Your task to perform on an android device: Search for jbl charge 4 on target, select the first entry, and add it to the cart. Image 0: 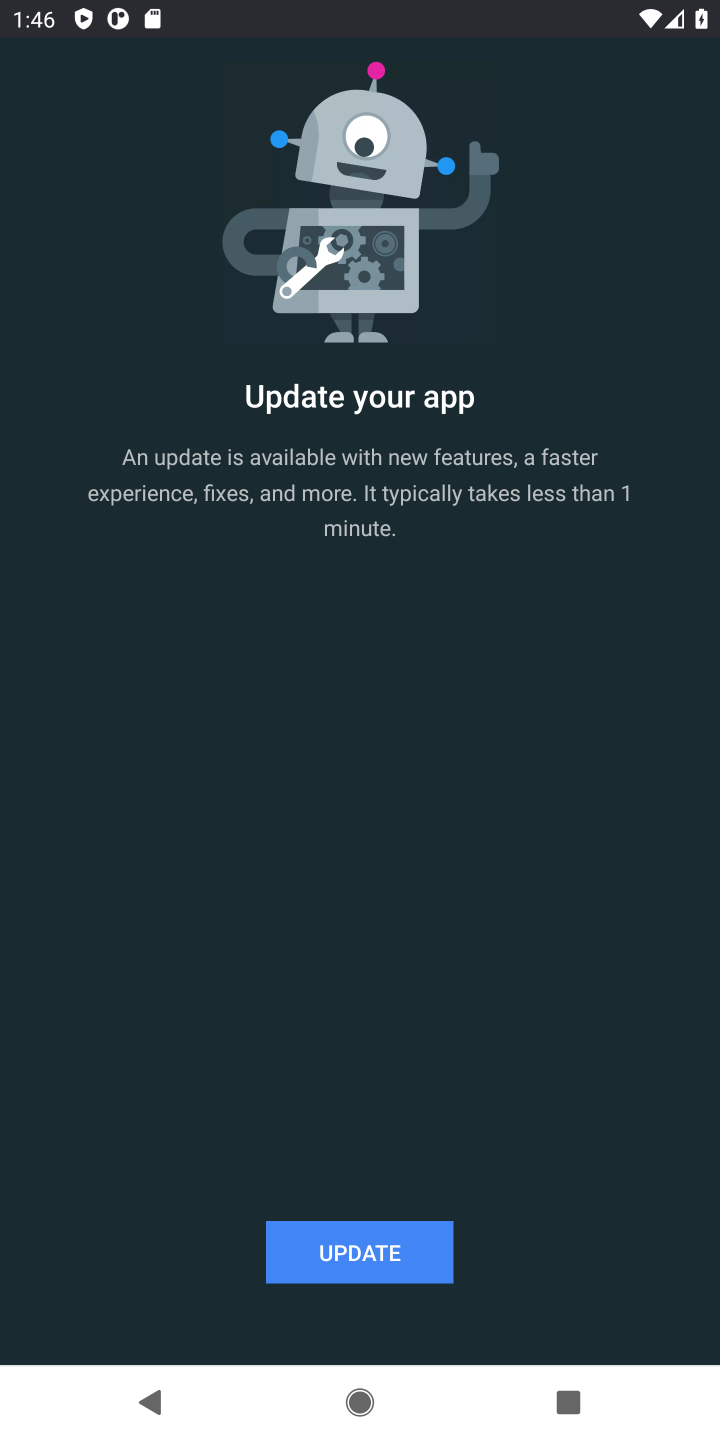
Step 0: press home button
Your task to perform on an android device: Search for jbl charge 4 on target, select the first entry, and add it to the cart. Image 1: 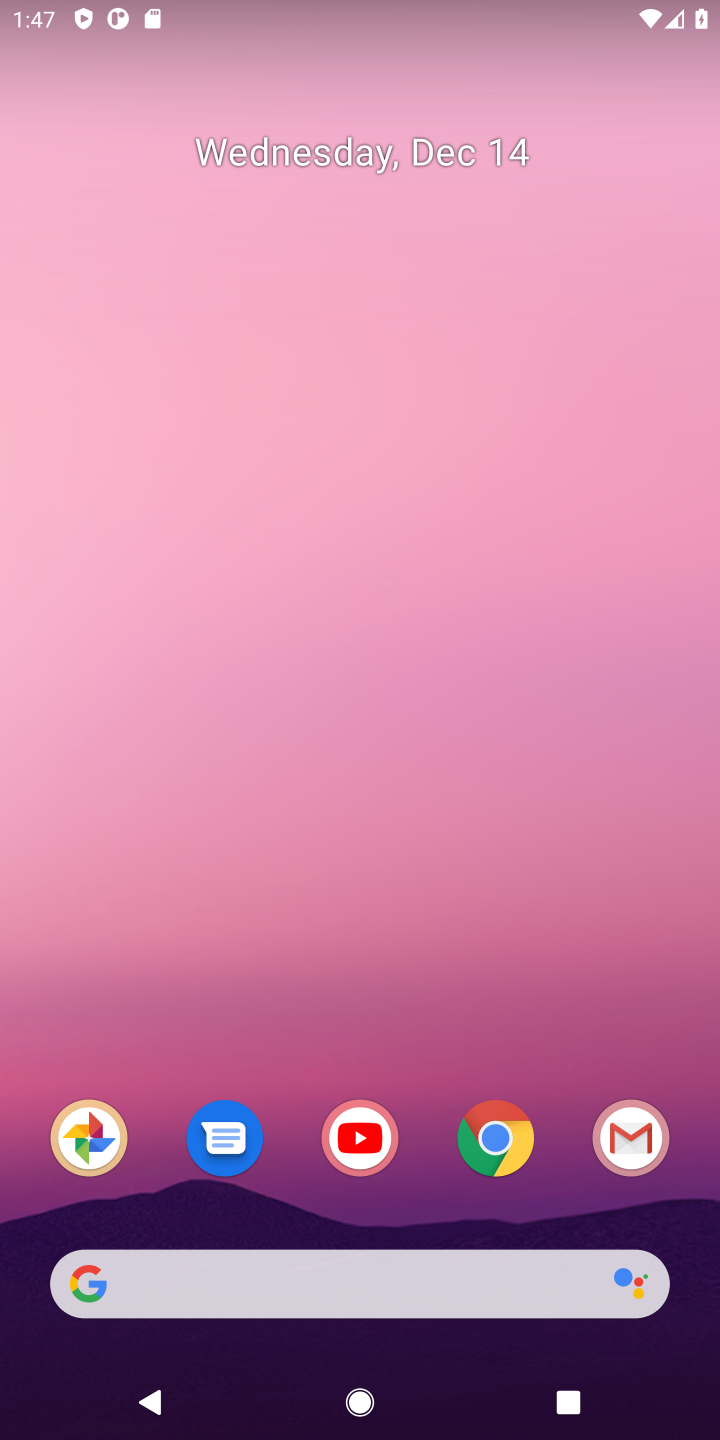
Step 1: click (499, 1140)
Your task to perform on an android device: Search for jbl charge 4 on target, select the first entry, and add it to the cart. Image 2: 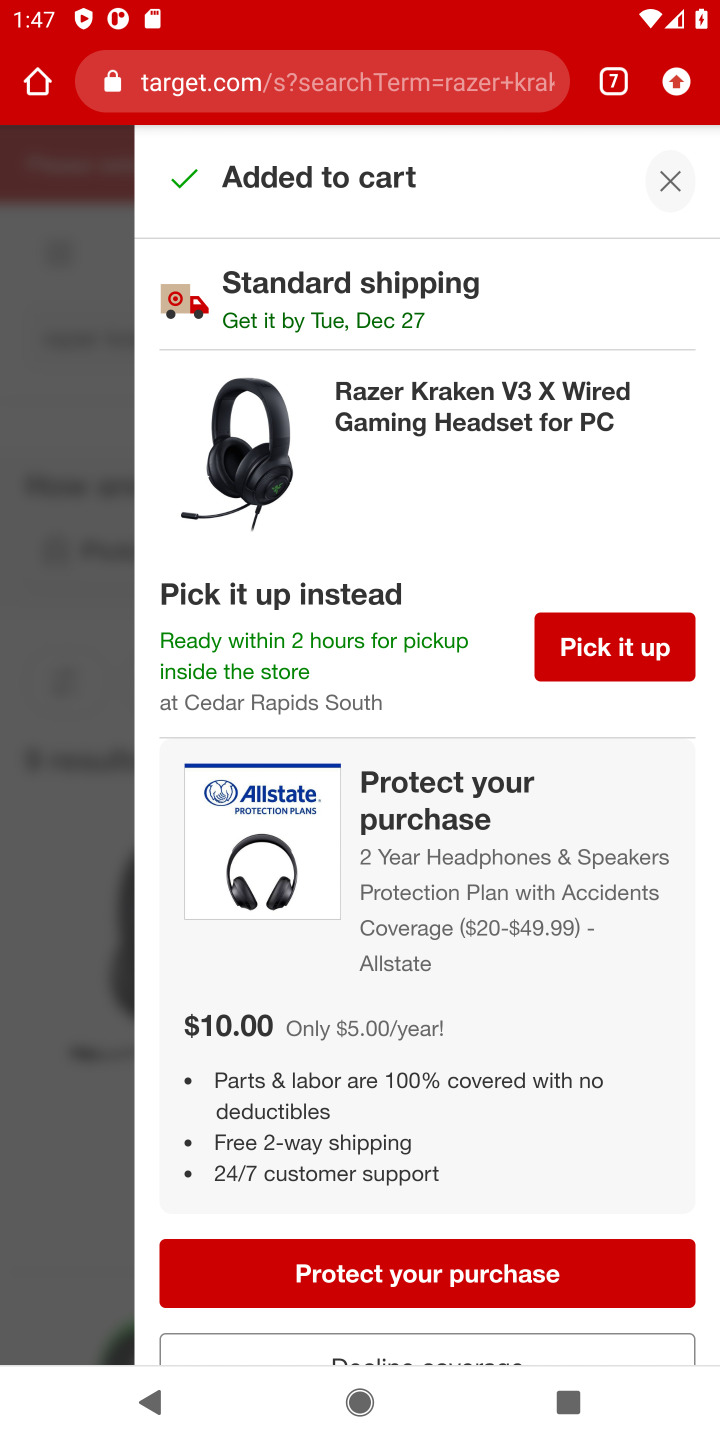
Step 2: click (667, 177)
Your task to perform on an android device: Search for jbl charge 4 on target, select the first entry, and add it to the cart. Image 3: 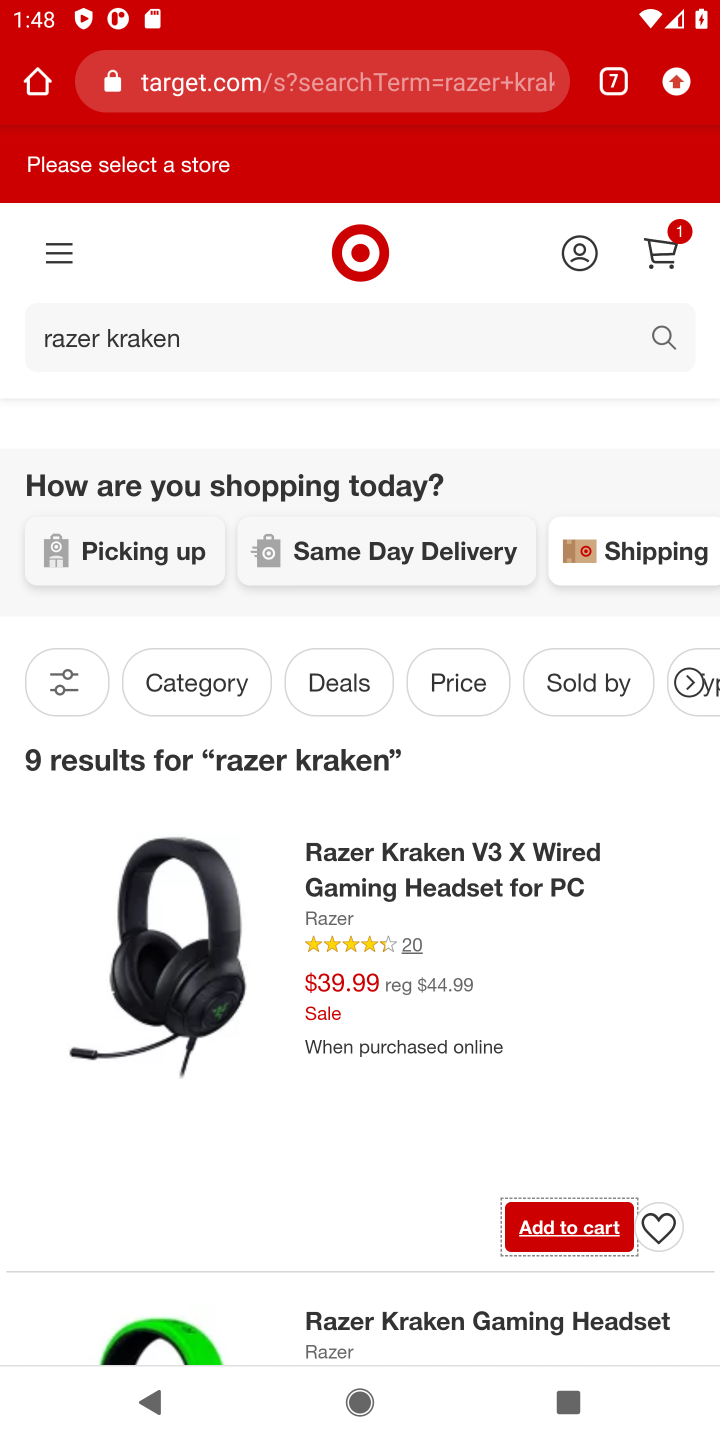
Step 3: click (249, 332)
Your task to perform on an android device: Search for jbl charge 4 on target, select the first entry, and add it to the cart. Image 4: 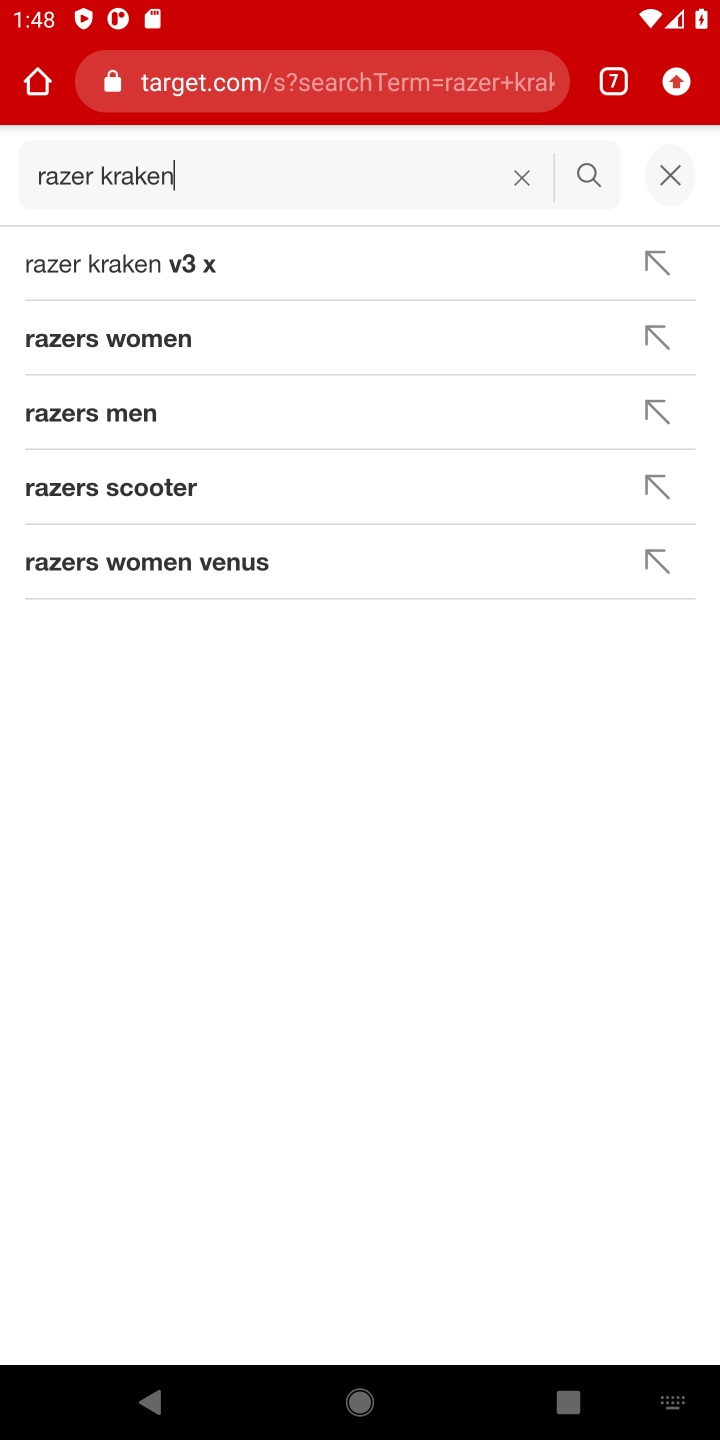
Step 4: click (528, 177)
Your task to perform on an android device: Search for jbl charge 4 on target, select the first entry, and add it to the cart. Image 5: 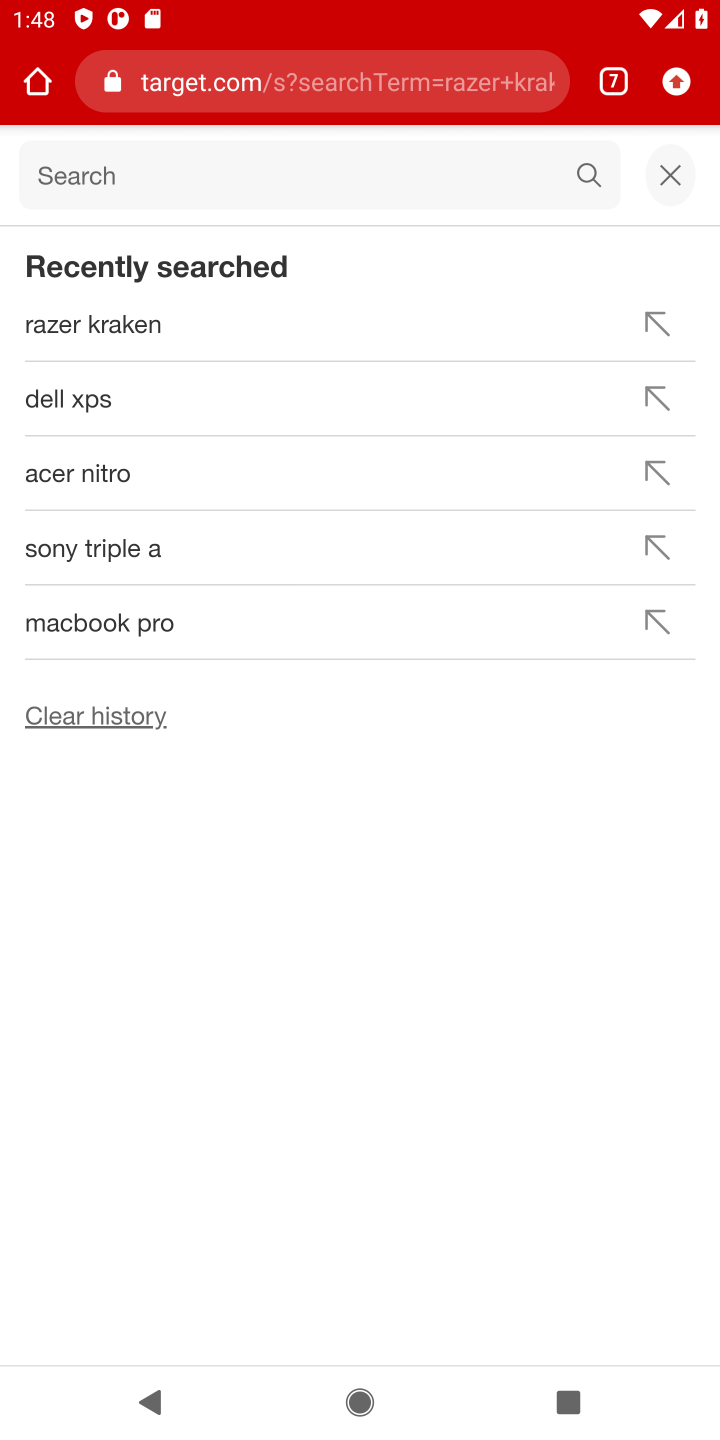
Step 5: type "jbl charge 4 "
Your task to perform on an android device: Search for jbl charge 4 on target, select the first entry, and add it to the cart. Image 6: 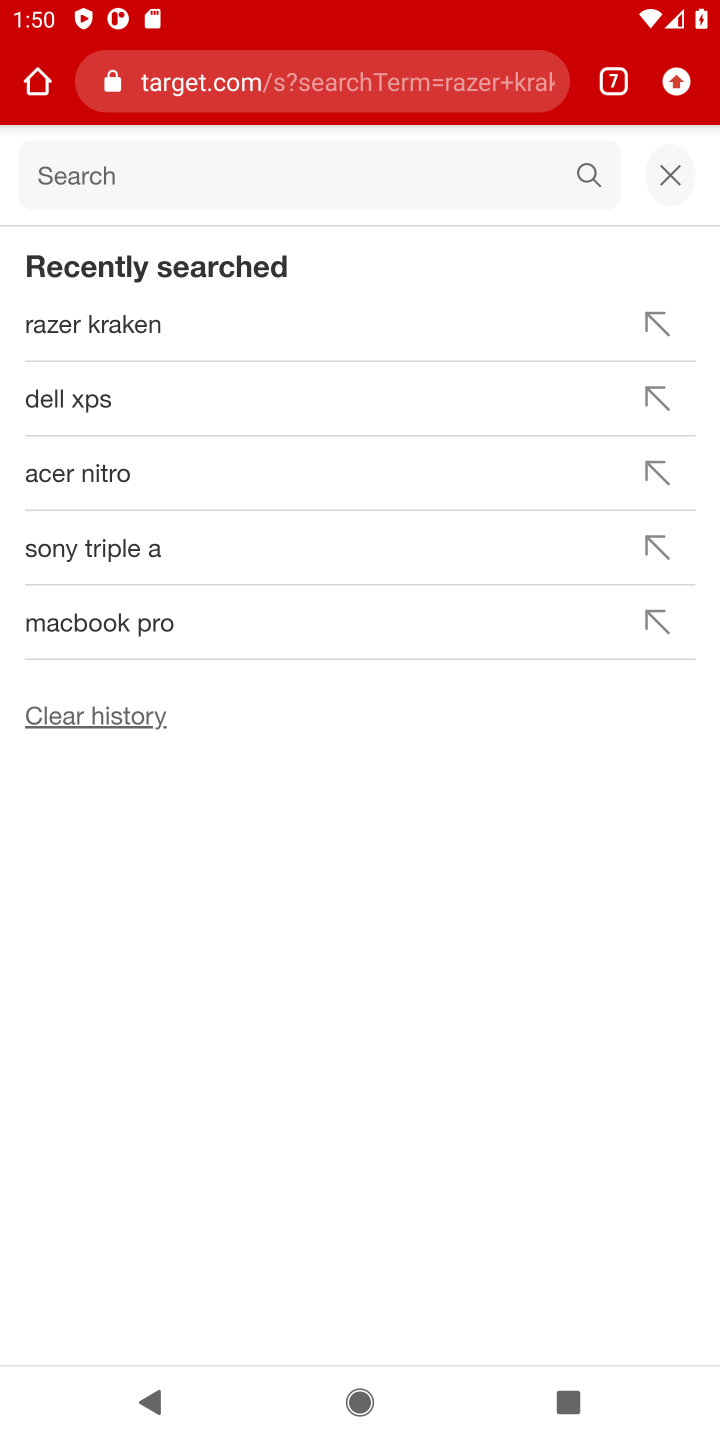
Step 6: click (117, 170)
Your task to perform on an android device: Search for jbl charge 4 on target, select the first entry, and add it to the cart. Image 7: 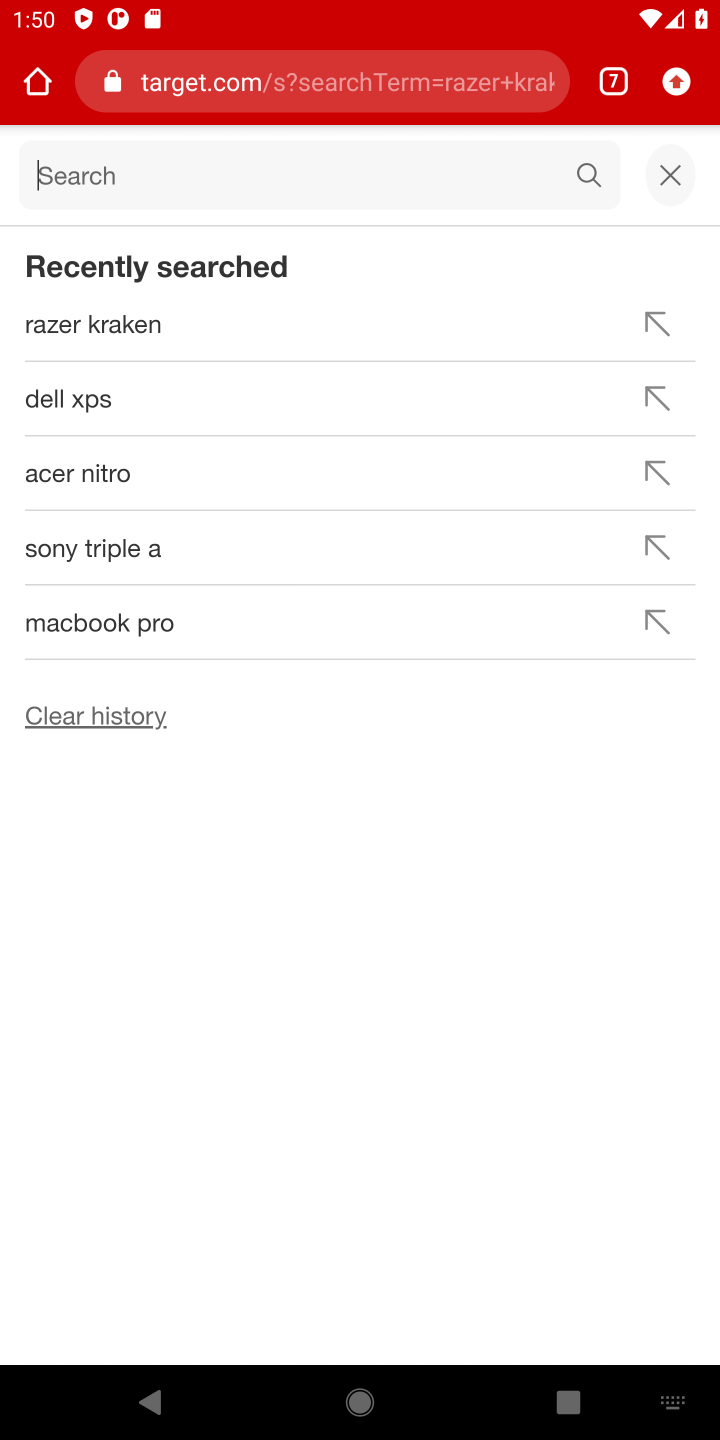
Step 7: type " jbl charge 4"
Your task to perform on an android device: Search for jbl charge 4 on target, select the first entry, and add it to the cart. Image 8: 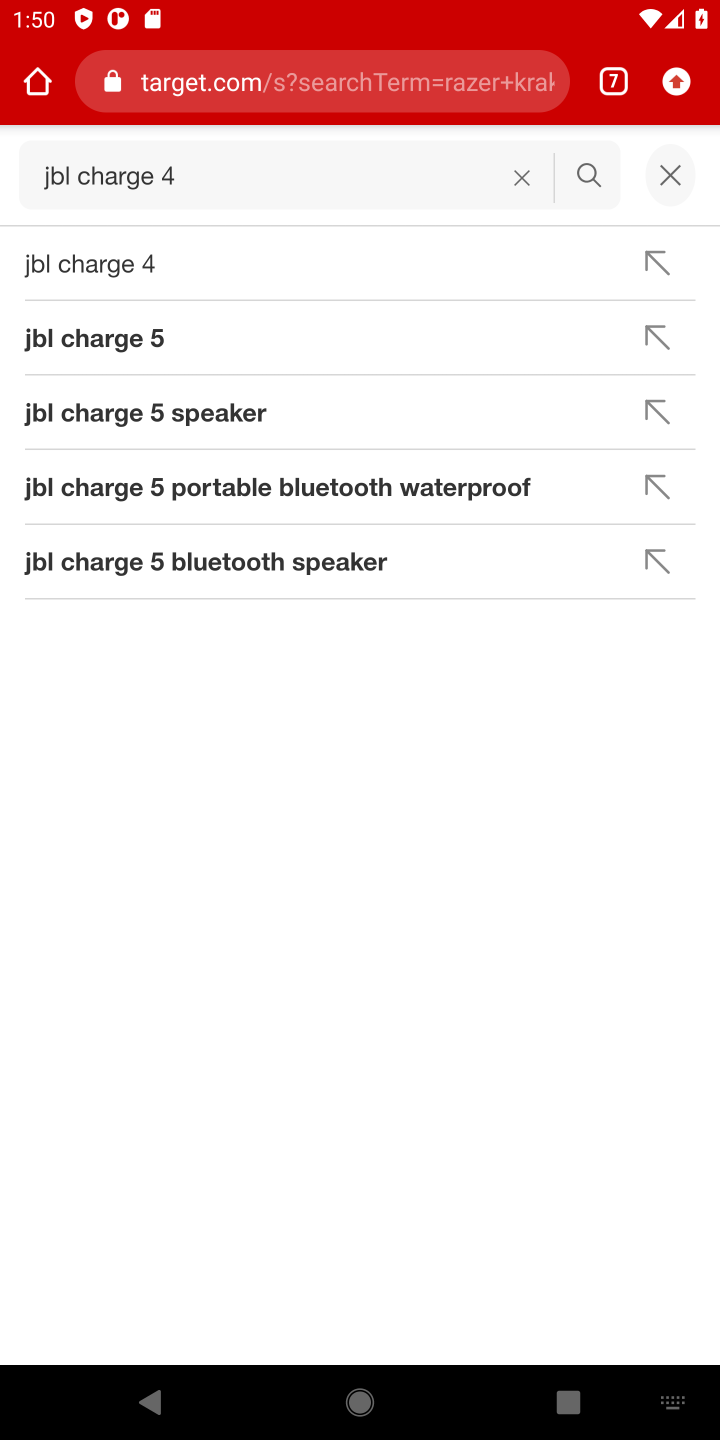
Step 8: click (62, 255)
Your task to perform on an android device: Search for jbl charge 4 on target, select the first entry, and add it to the cart. Image 9: 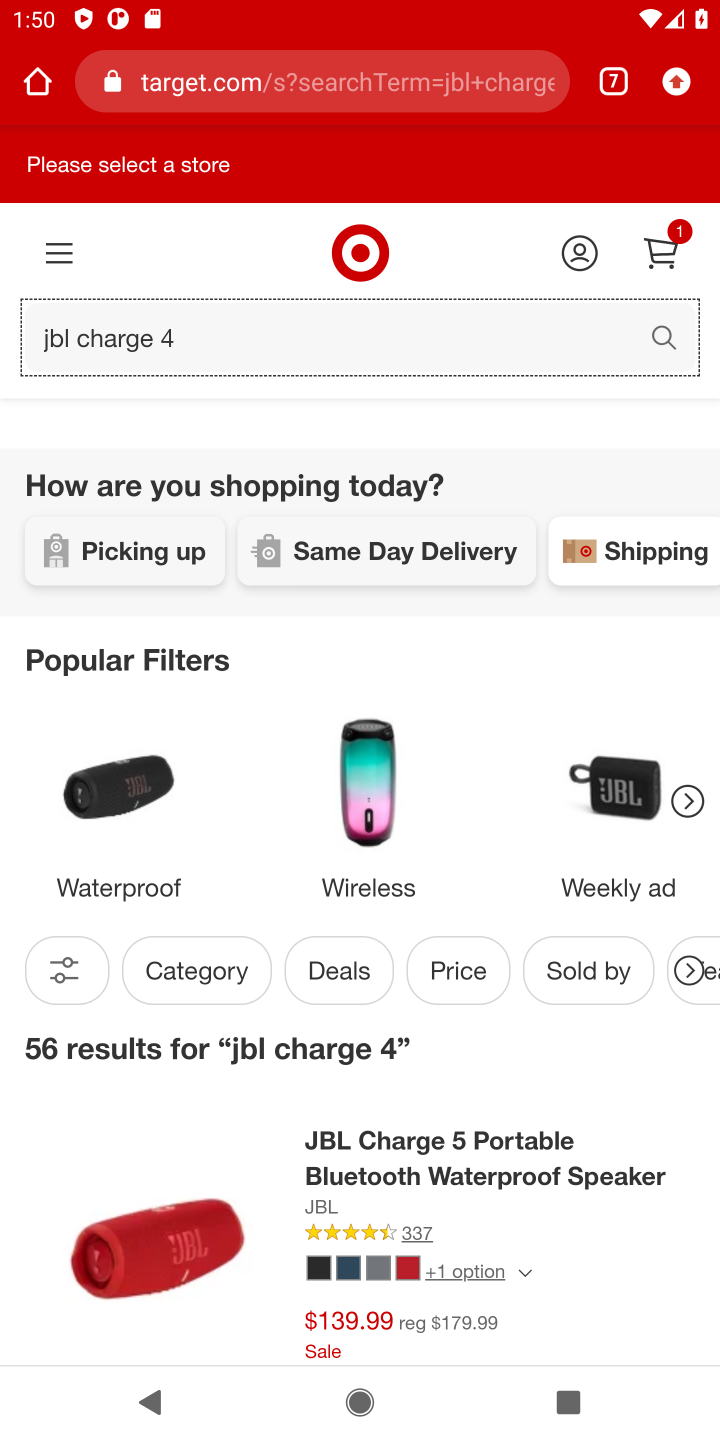
Step 9: drag from (546, 1223) to (655, 305)
Your task to perform on an android device: Search for jbl charge 4 on target, select the first entry, and add it to the cart. Image 10: 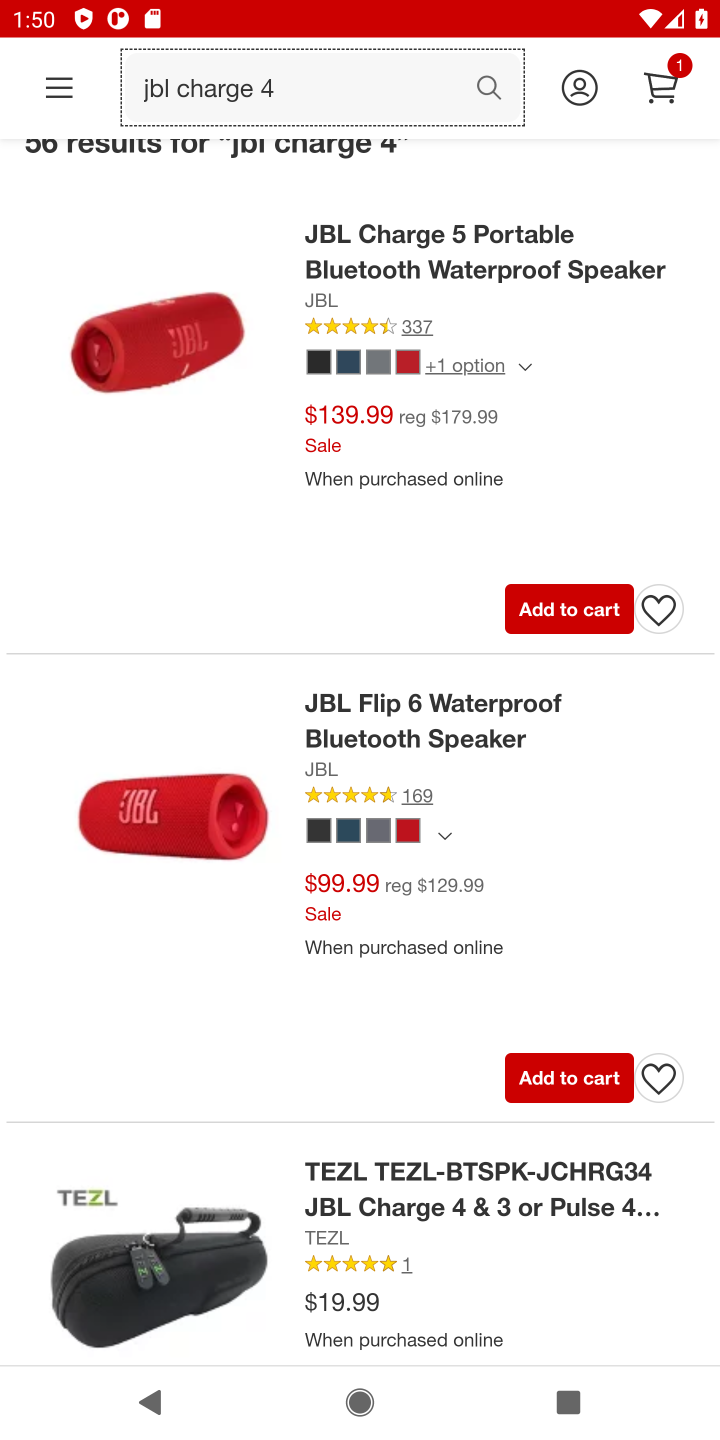
Step 10: drag from (463, 1231) to (561, 618)
Your task to perform on an android device: Search for jbl charge 4 on target, select the first entry, and add it to the cart. Image 11: 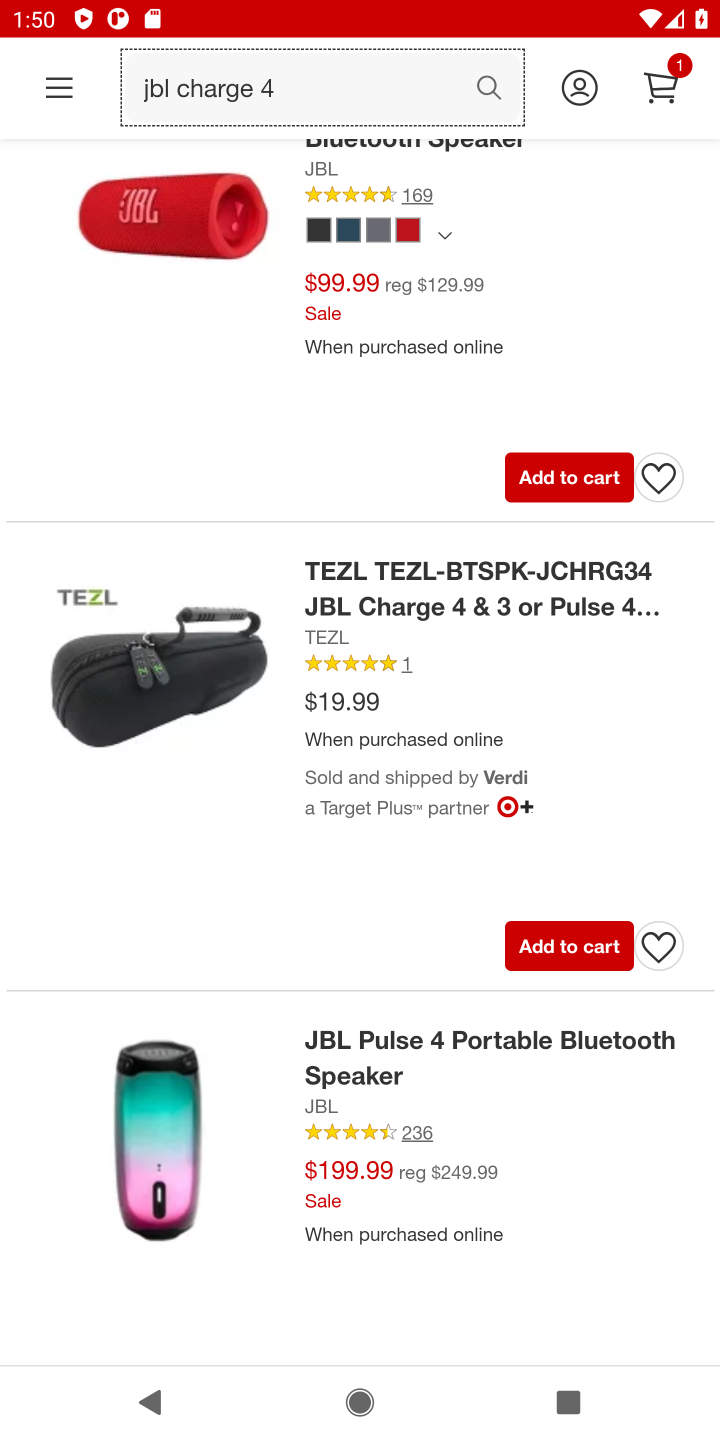
Step 11: click (558, 945)
Your task to perform on an android device: Search for jbl charge 4 on target, select the first entry, and add it to the cart. Image 12: 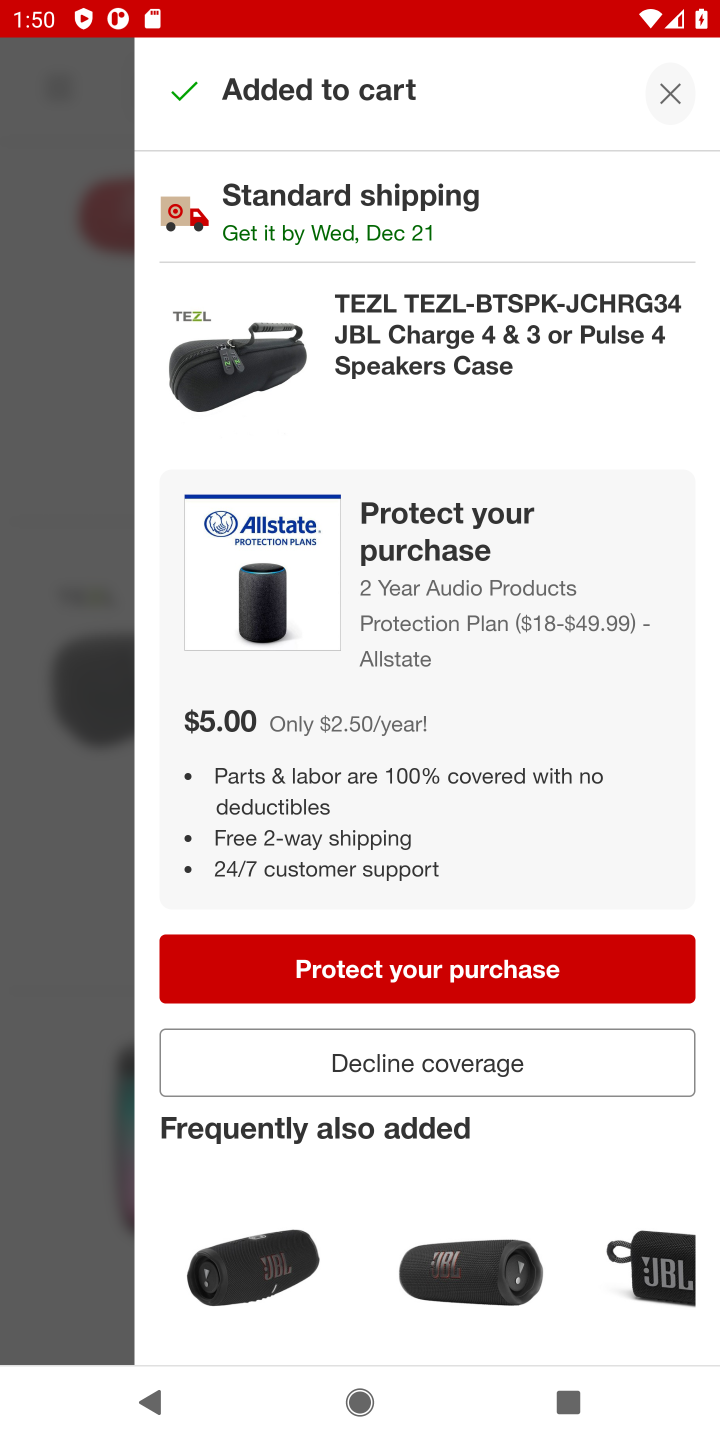
Step 12: task complete